Your task to perform on an android device: Empty the shopping cart on walmart. Search for dell alienware on walmart, select the first entry, add it to the cart, then select checkout. Image 0: 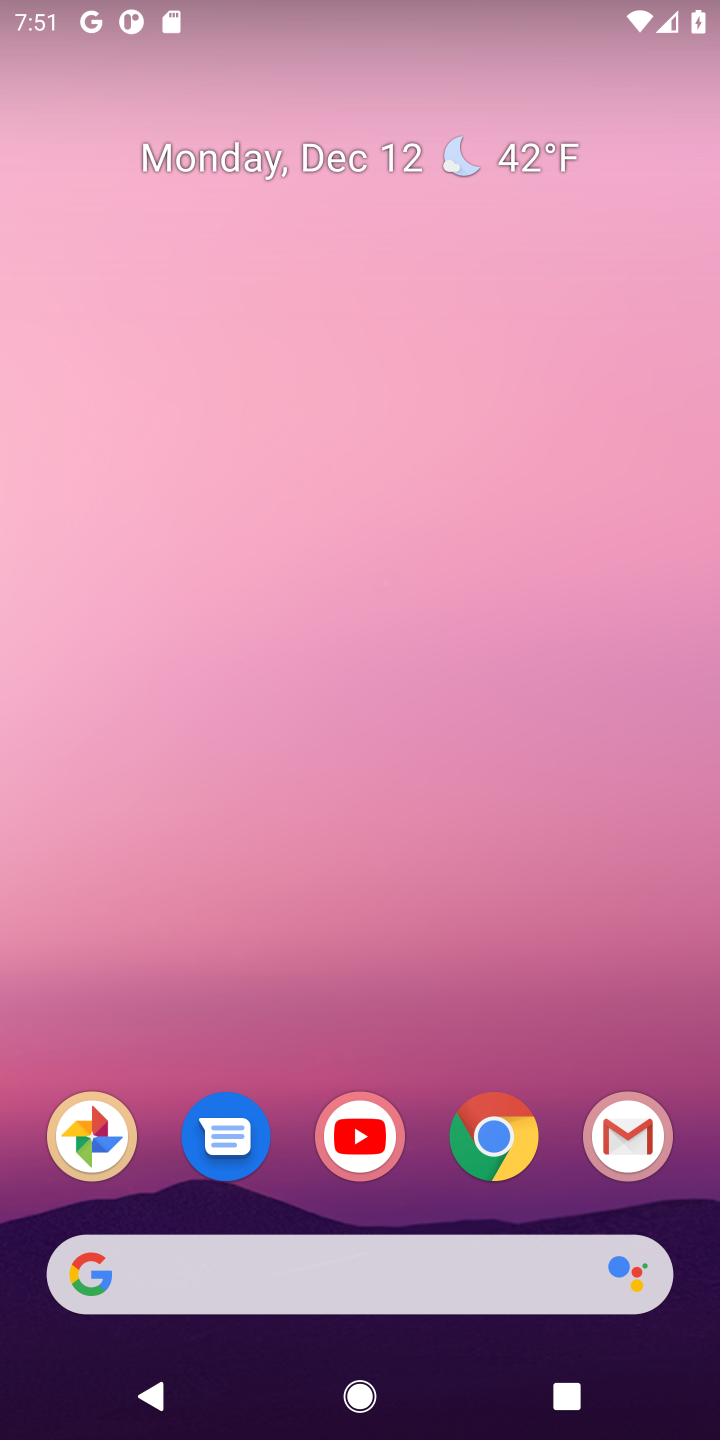
Step 0: click (490, 1133)
Your task to perform on an android device: Empty the shopping cart on walmart. Search for dell alienware on walmart, select the first entry, add it to the cart, then select checkout. Image 1: 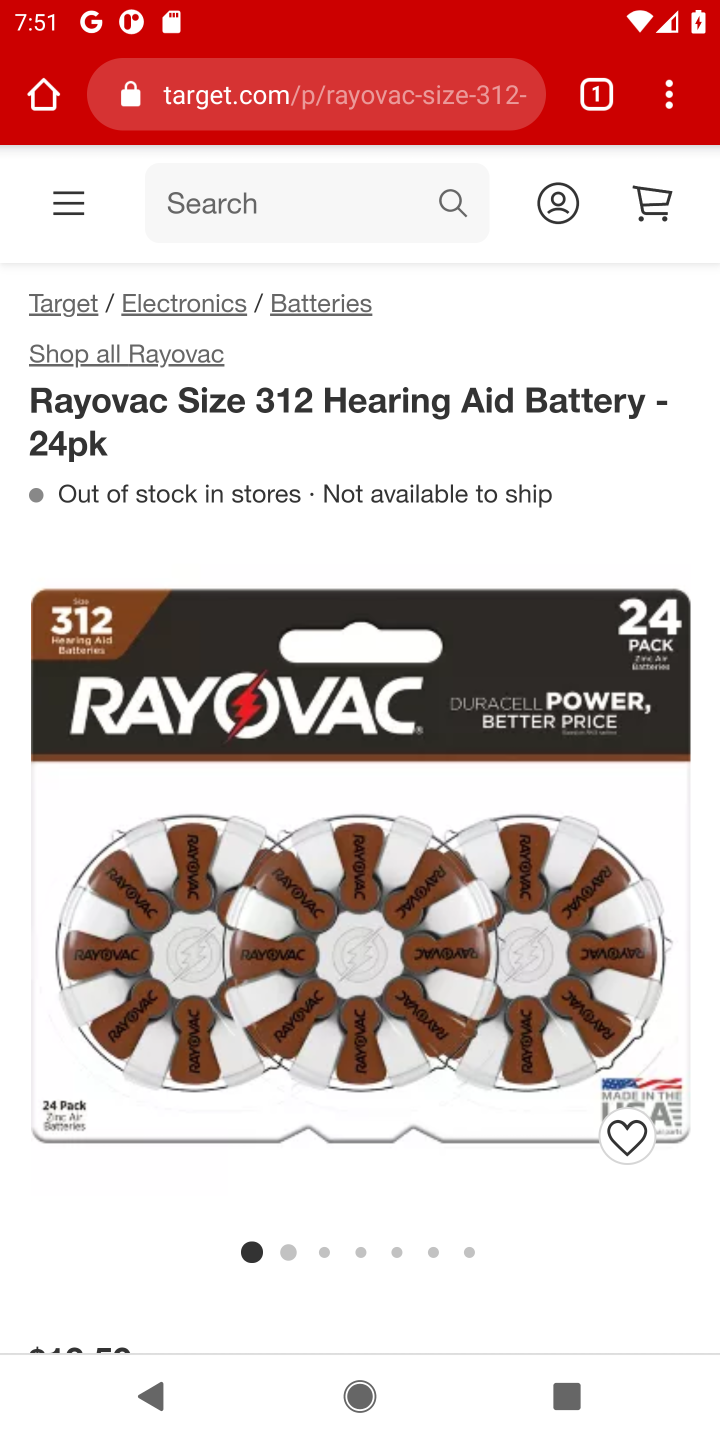
Step 1: click (260, 103)
Your task to perform on an android device: Empty the shopping cart on walmart. Search for dell alienware on walmart, select the first entry, add it to the cart, then select checkout. Image 2: 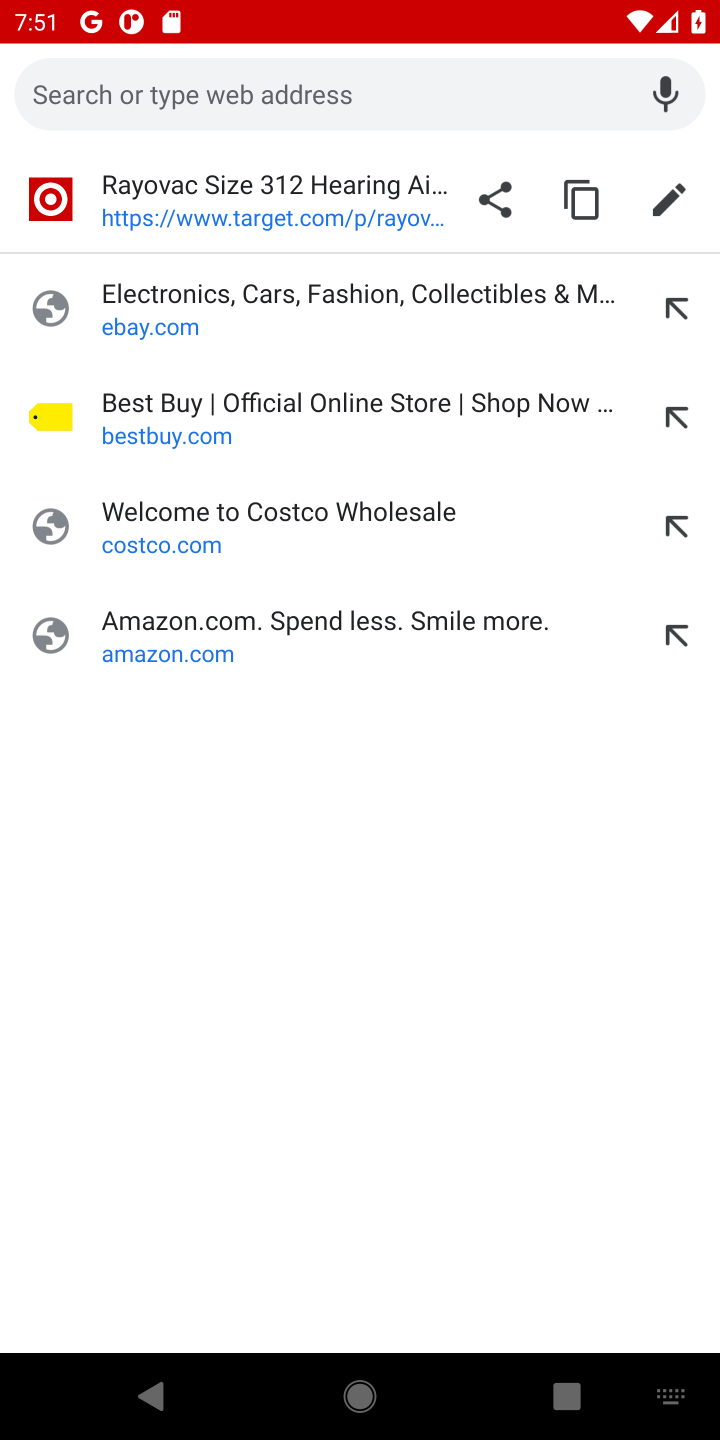
Step 2: type "walmart.com"
Your task to perform on an android device: Empty the shopping cart on walmart. Search for dell alienware on walmart, select the first entry, add it to the cart, then select checkout. Image 3: 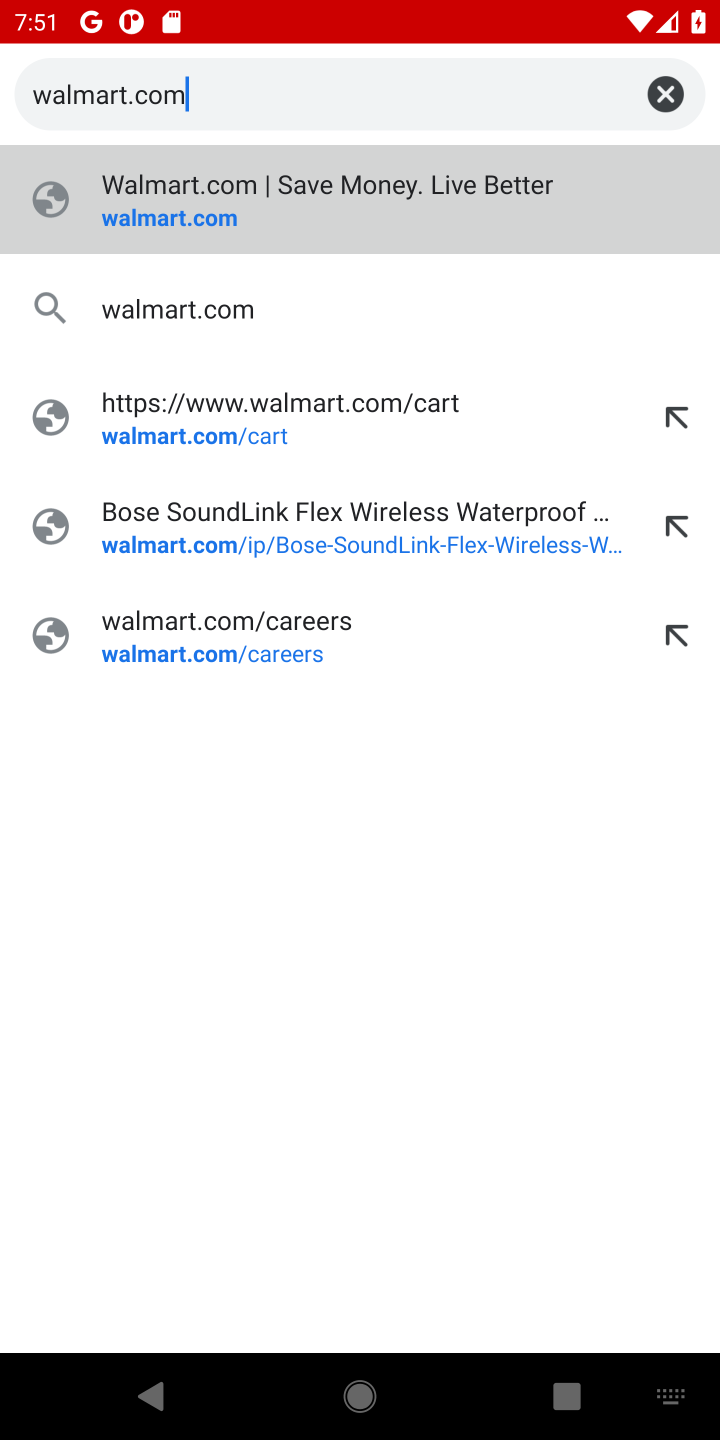
Step 3: click (139, 228)
Your task to perform on an android device: Empty the shopping cart on walmart. Search for dell alienware on walmart, select the first entry, add it to the cart, then select checkout. Image 4: 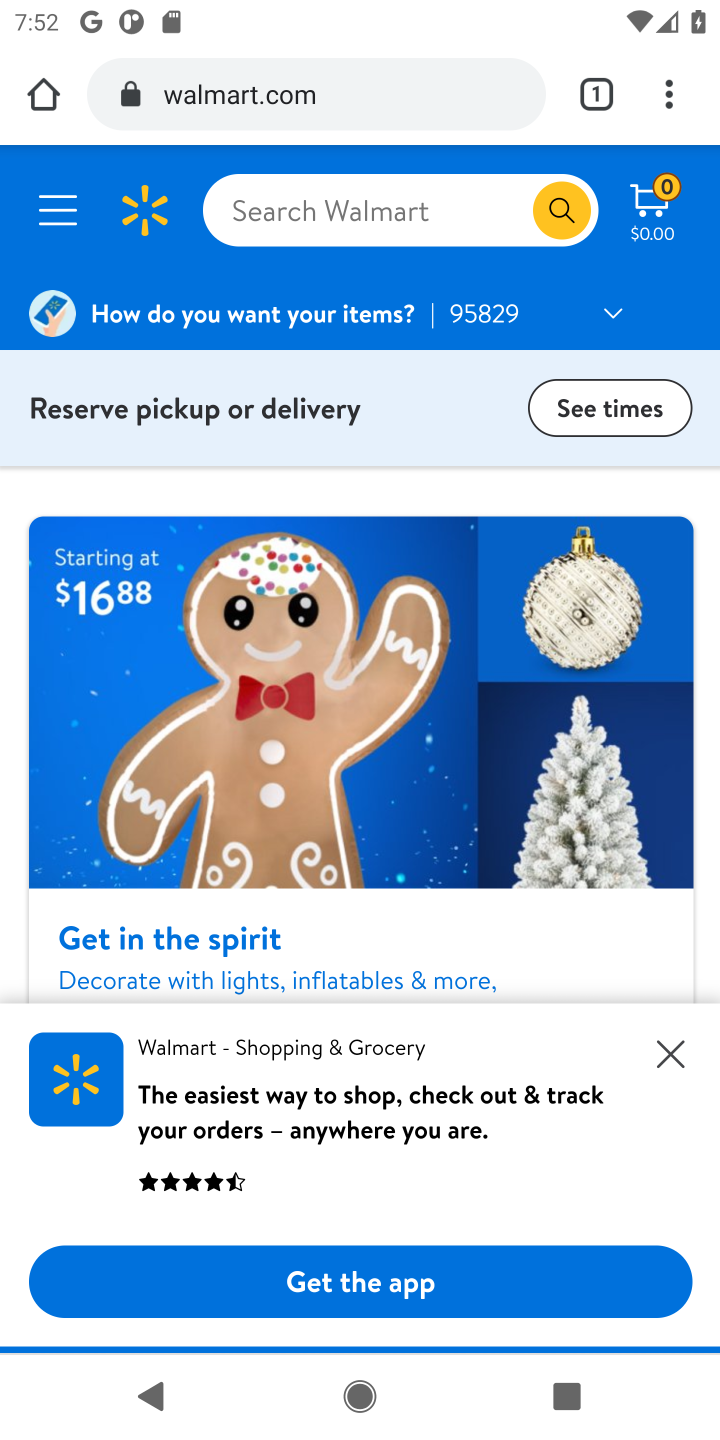
Step 4: click (650, 208)
Your task to perform on an android device: Empty the shopping cart on walmart. Search for dell alienware on walmart, select the first entry, add it to the cart, then select checkout. Image 5: 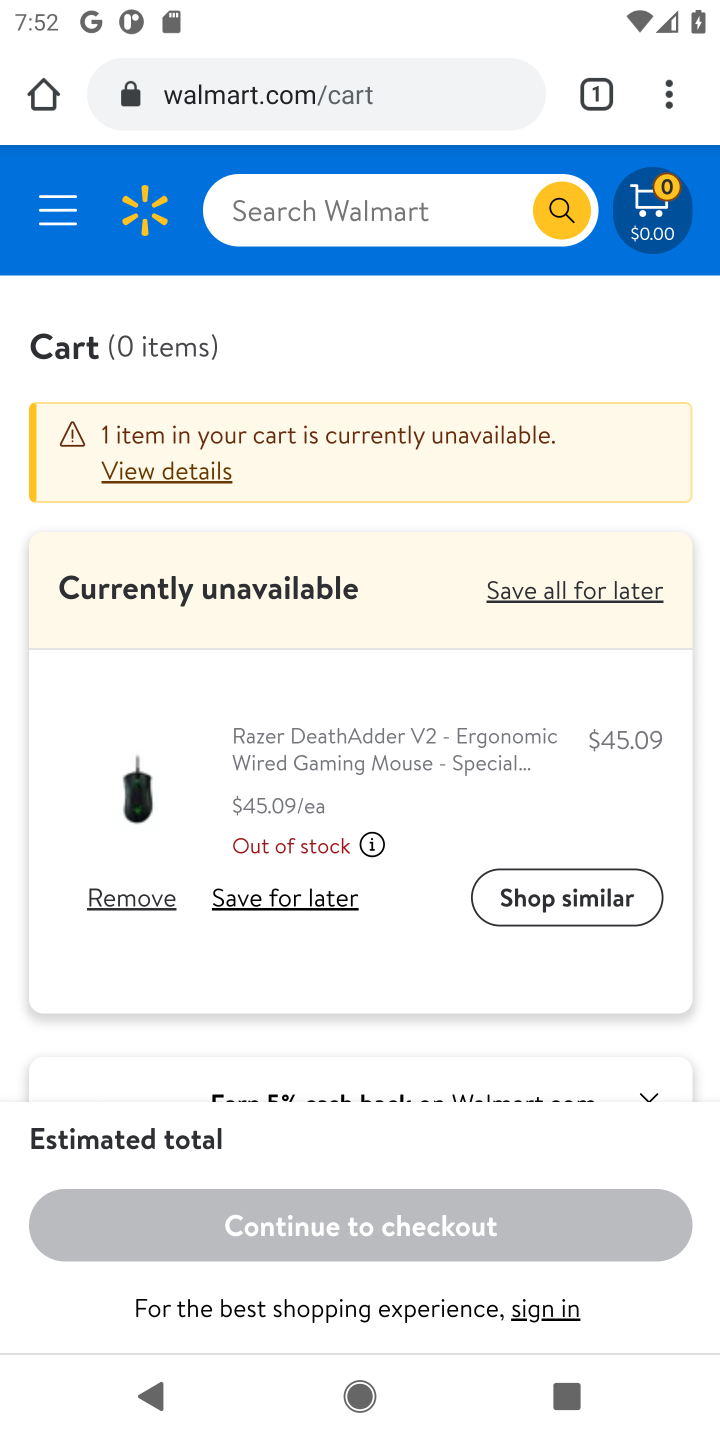
Step 5: click (147, 901)
Your task to perform on an android device: Empty the shopping cart on walmart. Search for dell alienware on walmart, select the first entry, add it to the cart, then select checkout. Image 6: 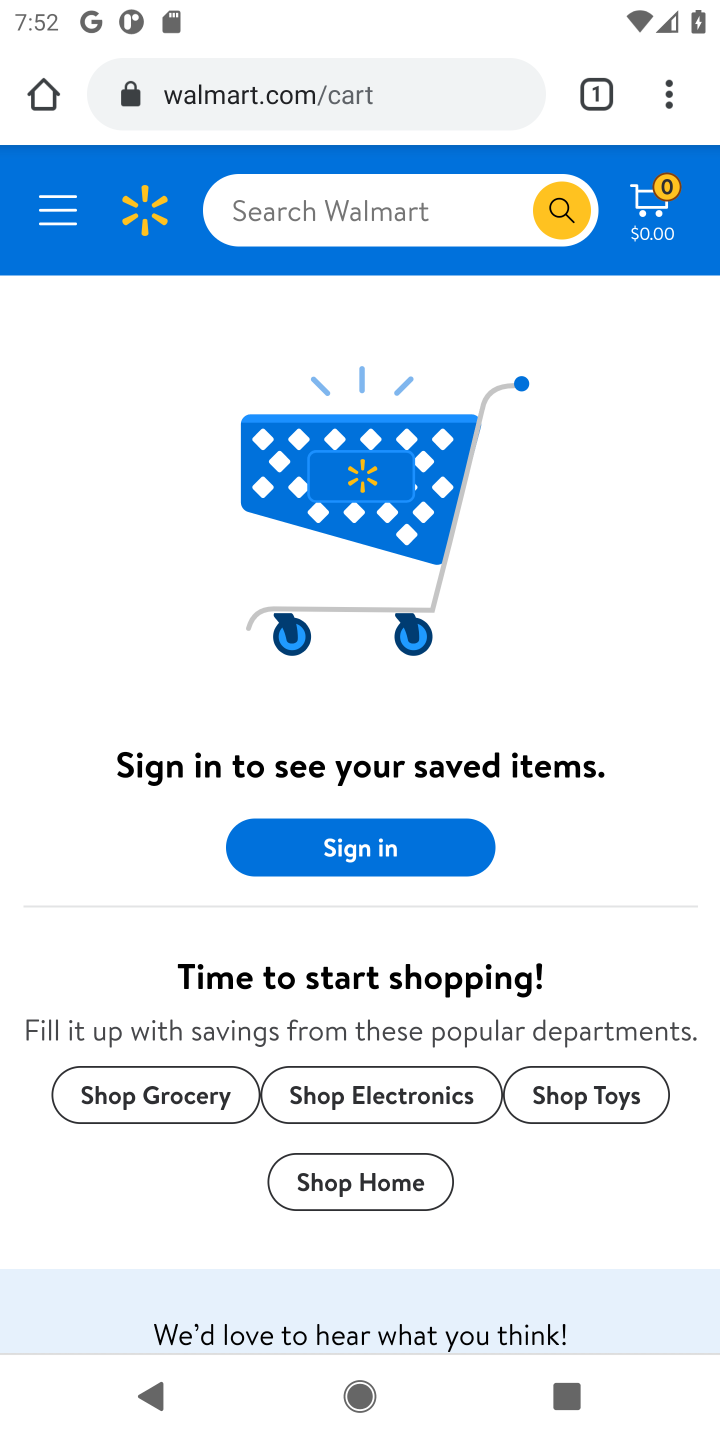
Step 6: click (369, 211)
Your task to perform on an android device: Empty the shopping cart on walmart. Search for dell alienware on walmart, select the first entry, add it to the cart, then select checkout. Image 7: 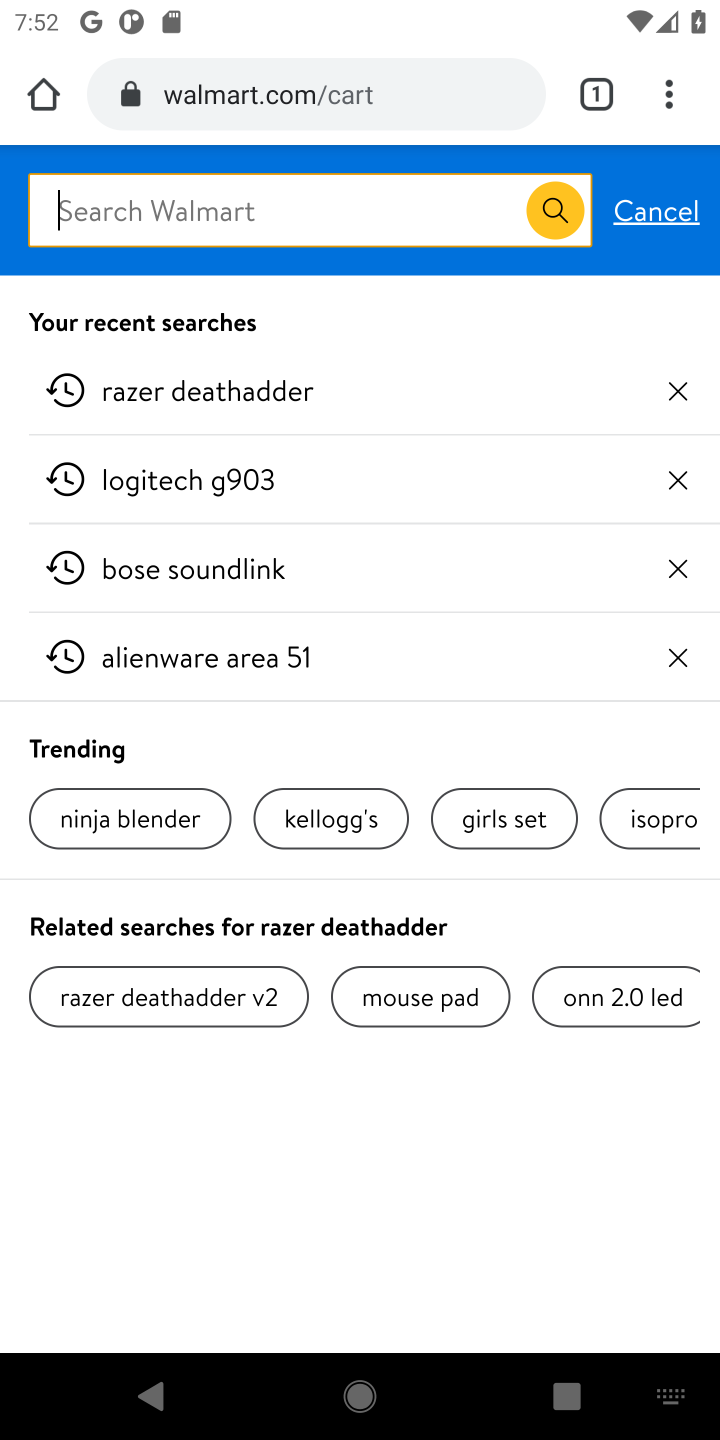
Step 7: type " dell alienware"
Your task to perform on an android device: Empty the shopping cart on walmart. Search for dell alienware on walmart, select the first entry, add it to the cart, then select checkout. Image 8: 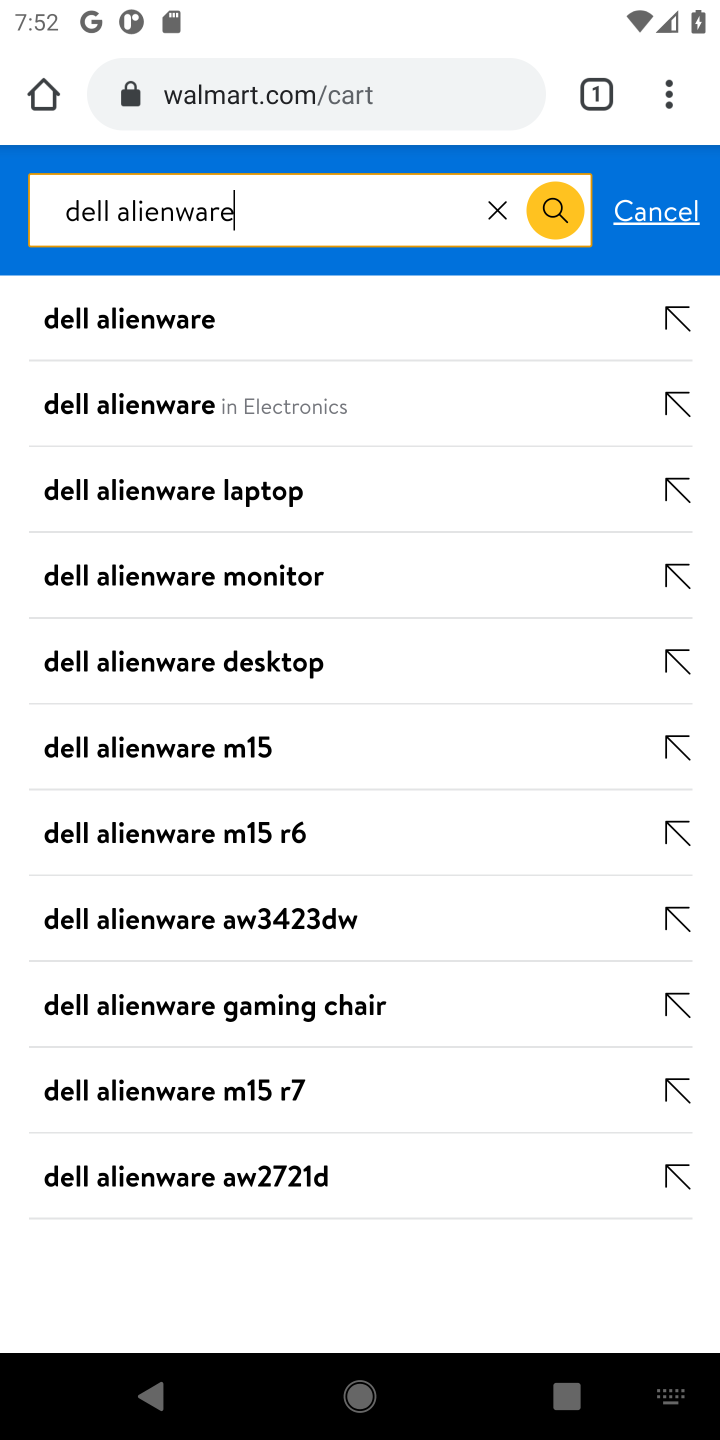
Step 8: click (67, 324)
Your task to perform on an android device: Empty the shopping cart on walmart. Search for dell alienware on walmart, select the first entry, add it to the cart, then select checkout. Image 9: 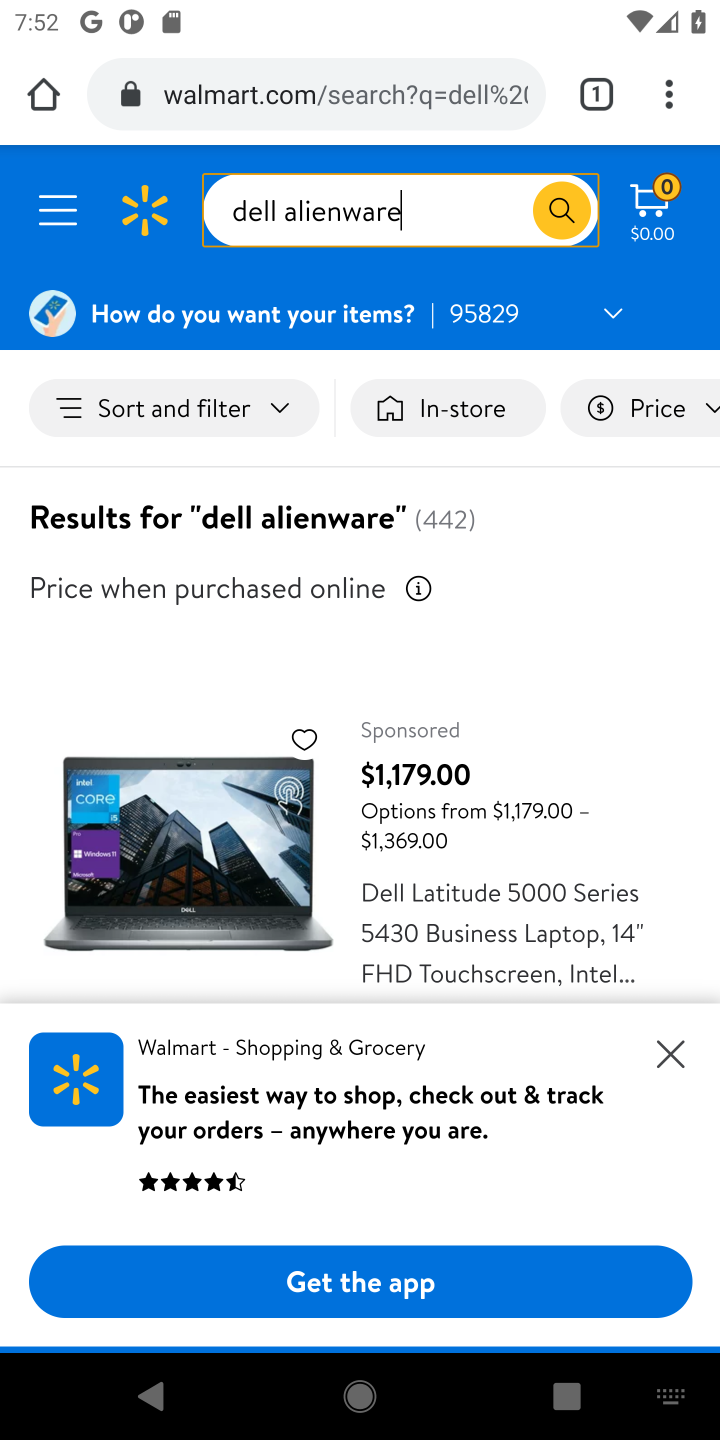
Step 9: task complete